Your task to perform on an android device: Go to wifi settings Image 0: 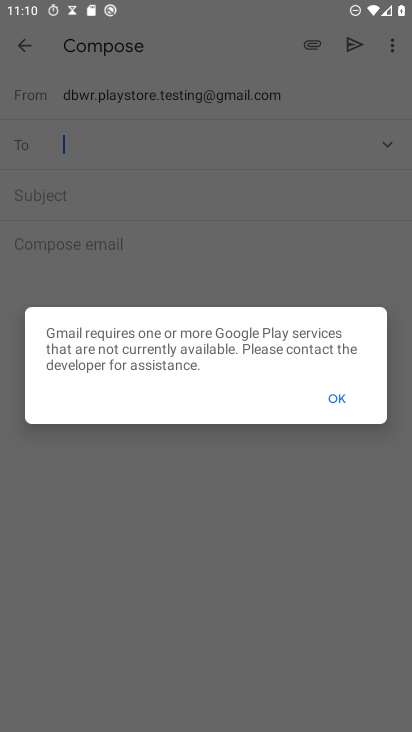
Step 0: click (343, 391)
Your task to perform on an android device: Go to wifi settings Image 1: 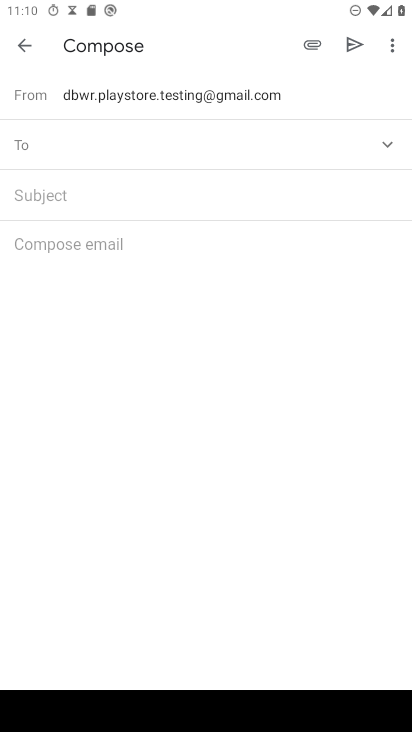
Step 1: press back button
Your task to perform on an android device: Go to wifi settings Image 2: 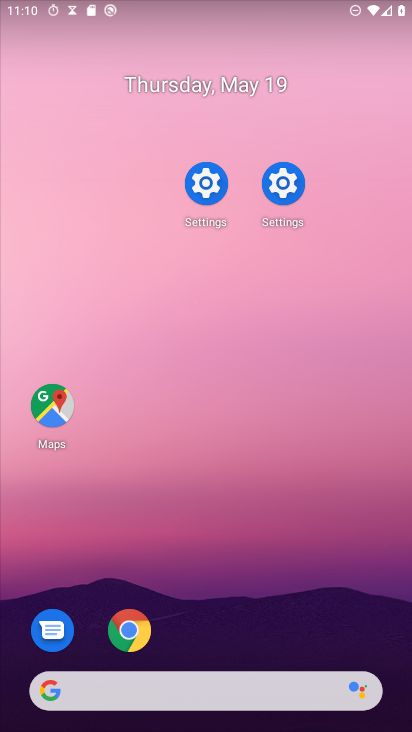
Step 2: drag from (232, 608) to (170, 204)
Your task to perform on an android device: Go to wifi settings Image 3: 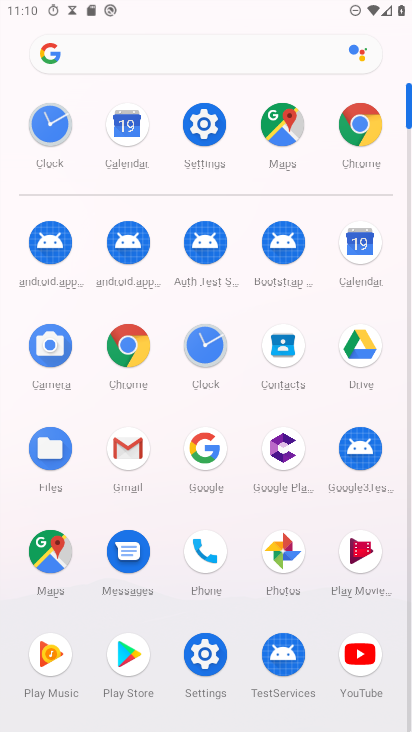
Step 3: click (192, 131)
Your task to perform on an android device: Go to wifi settings Image 4: 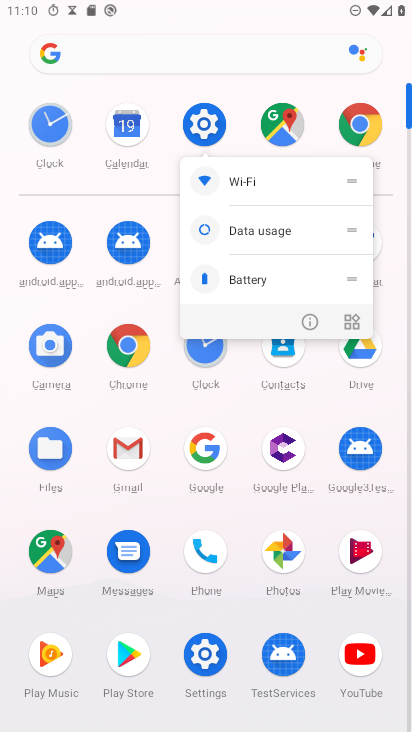
Step 4: click (196, 132)
Your task to perform on an android device: Go to wifi settings Image 5: 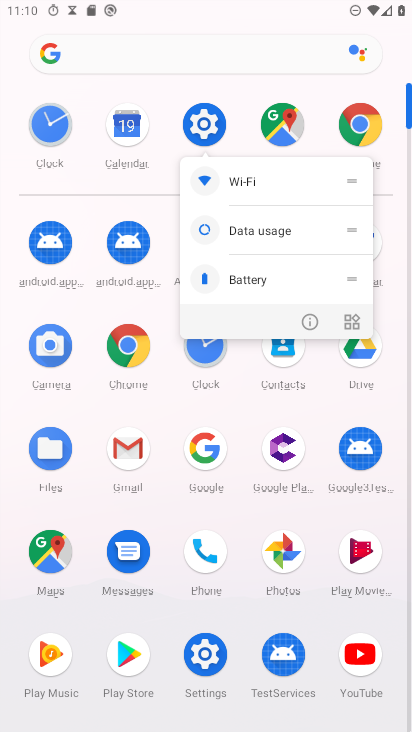
Step 5: drag from (212, 116) to (148, 343)
Your task to perform on an android device: Go to wifi settings Image 6: 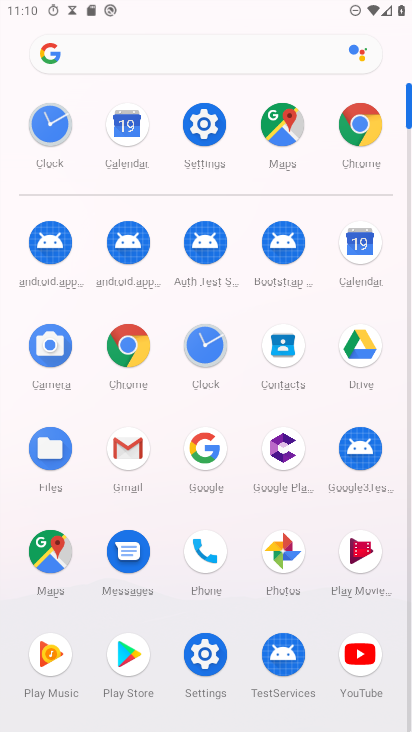
Step 6: click (127, 419)
Your task to perform on an android device: Go to wifi settings Image 7: 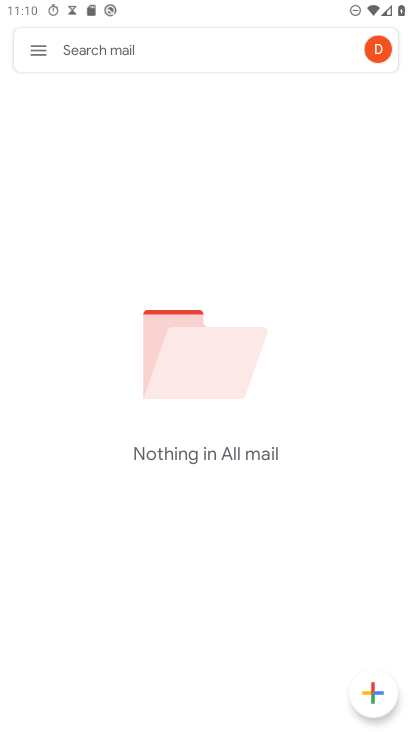
Step 7: click (33, 52)
Your task to perform on an android device: Go to wifi settings Image 8: 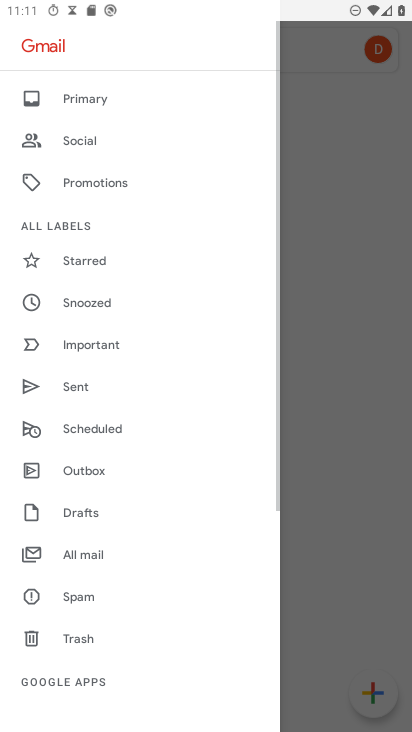
Step 8: press back button
Your task to perform on an android device: Go to wifi settings Image 9: 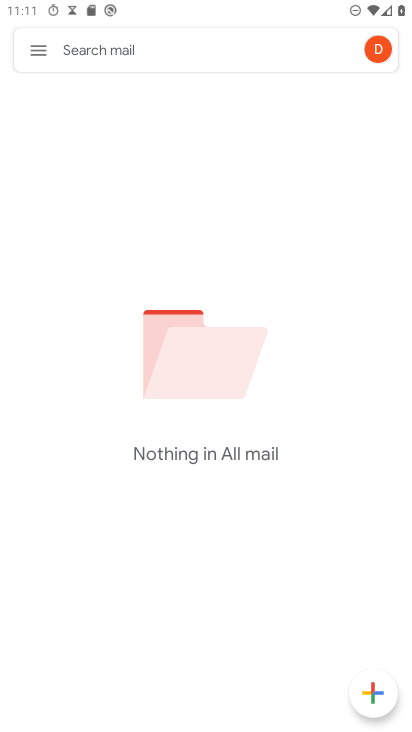
Step 9: press home button
Your task to perform on an android device: Go to wifi settings Image 10: 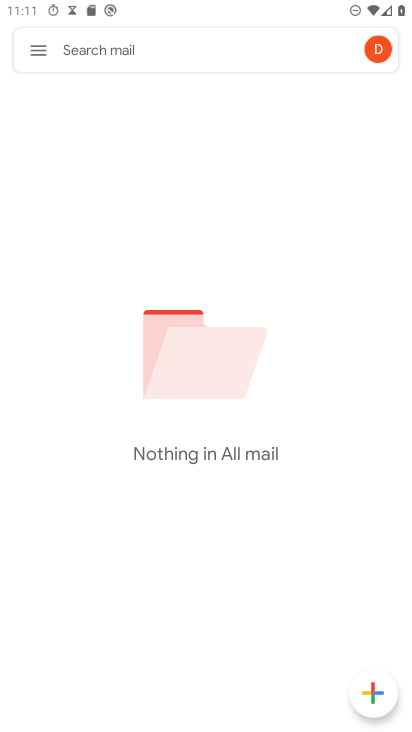
Step 10: press home button
Your task to perform on an android device: Go to wifi settings Image 11: 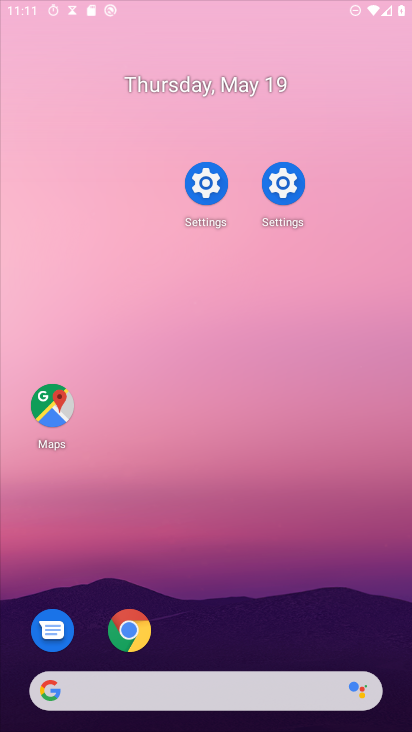
Step 11: press home button
Your task to perform on an android device: Go to wifi settings Image 12: 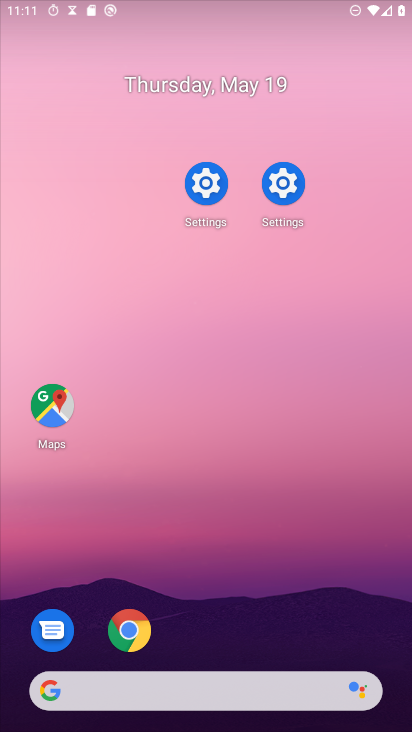
Step 12: press home button
Your task to perform on an android device: Go to wifi settings Image 13: 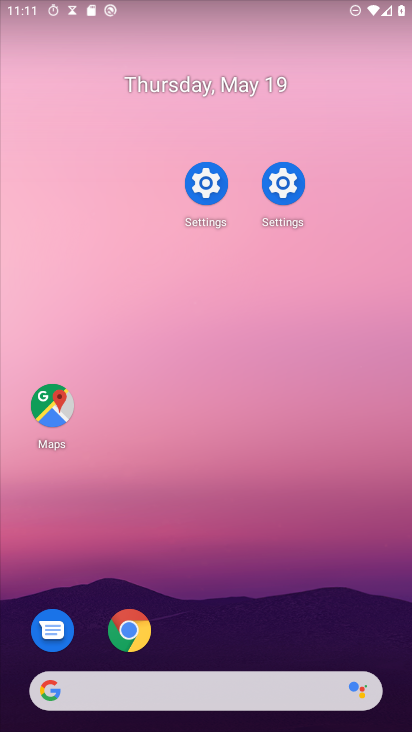
Step 13: press home button
Your task to perform on an android device: Go to wifi settings Image 14: 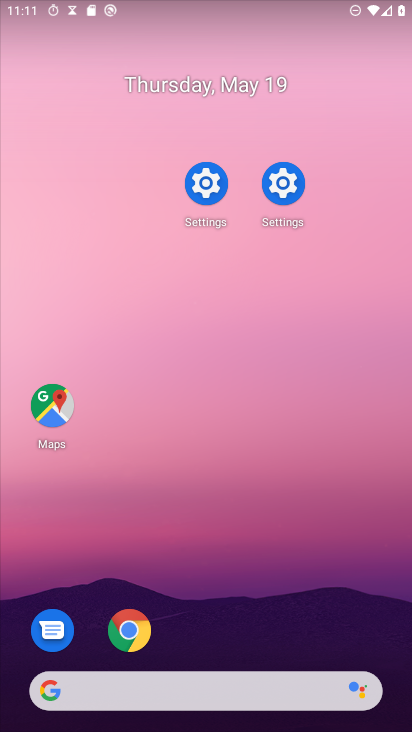
Step 14: press back button
Your task to perform on an android device: Go to wifi settings Image 15: 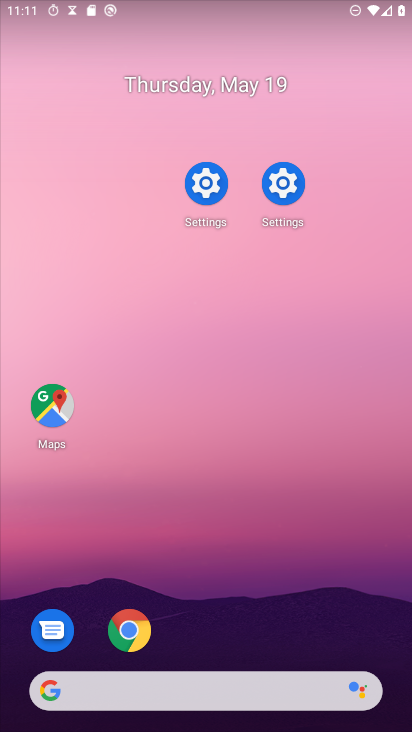
Step 15: press home button
Your task to perform on an android device: Go to wifi settings Image 16: 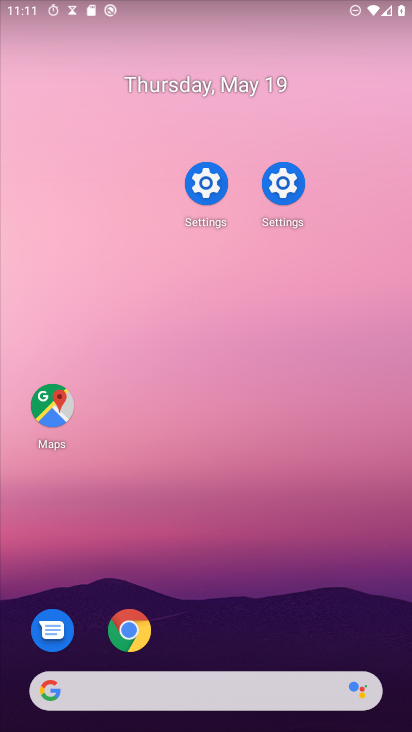
Step 16: drag from (271, 626) to (120, 12)
Your task to perform on an android device: Go to wifi settings Image 17: 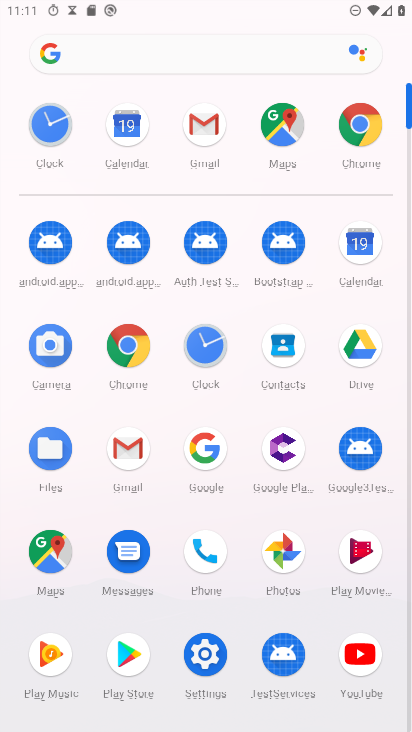
Step 17: click (198, 657)
Your task to perform on an android device: Go to wifi settings Image 18: 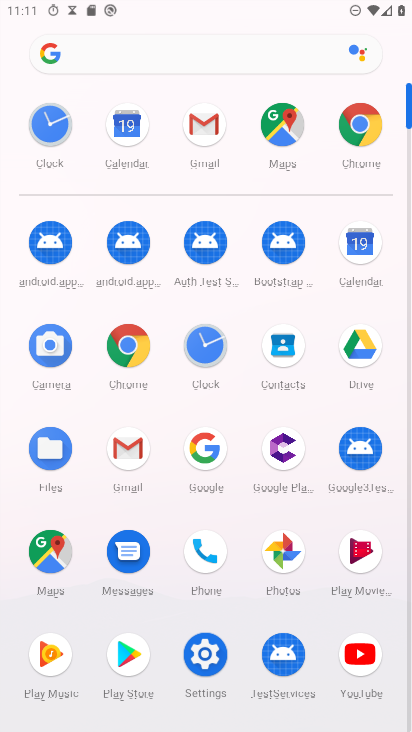
Step 18: click (217, 632)
Your task to perform on an android device: Go to wifi settings Image 19: 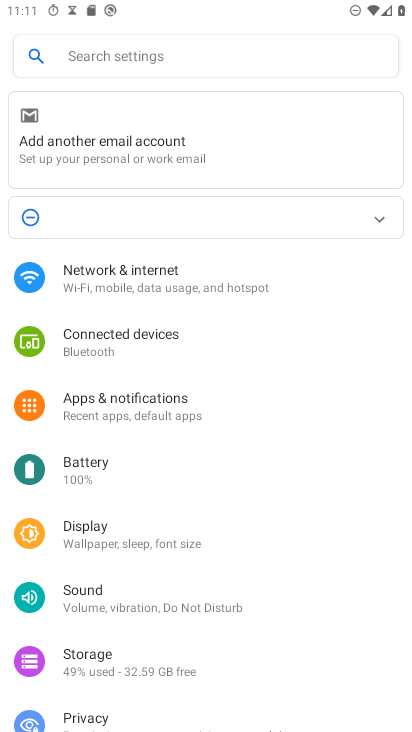
Step 19: click (122, 277)
Your task to perform on an android device: Go to wifi settings Image 20: 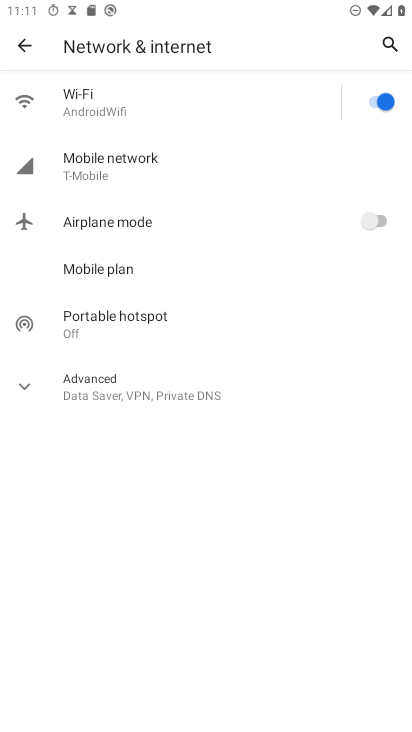
Step 20: task complete